Your task to perform on an android device: open chrome and create a bookmark for the current page Image 0: 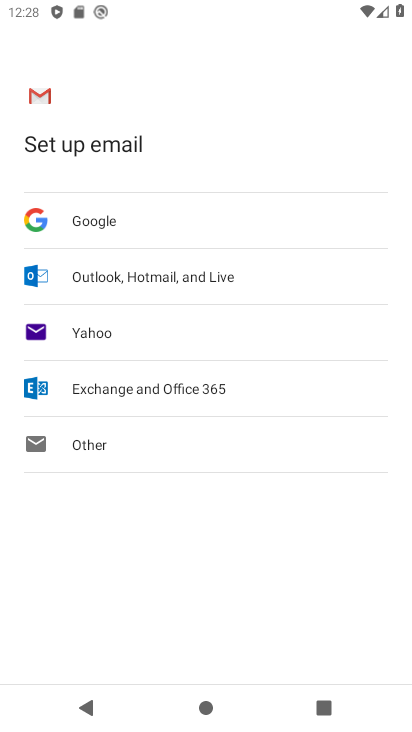
Step 0: press back button
Your task to perform on an android device: open chrome and create a bookmark for the current page Image 1: 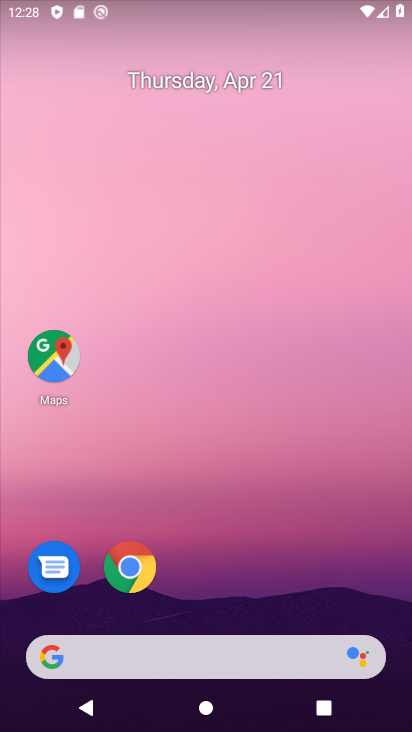
Step 1: click (120, 574)
Your task to perform on an android device: open chrome and create a bookmark for the current page Image 2: 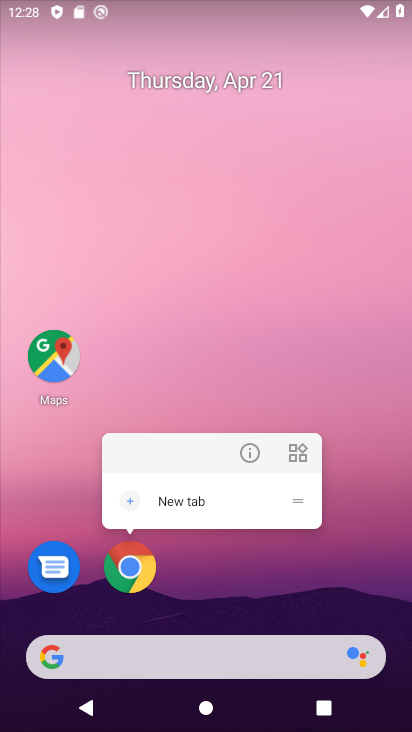
Step 2: click (137, 582)
Your task to perform on an android device: open chrome and create a bookmark for the current page Image 3: 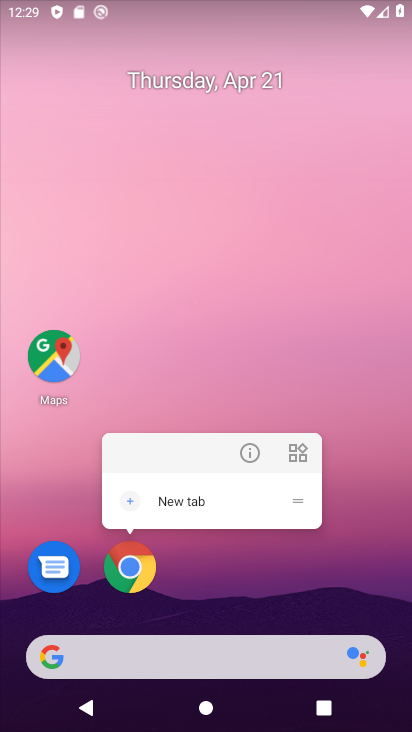
Step 3: click (159, 558)
Your task to perform on an android device: open chrome and create a bookmark for the current page Image 4: 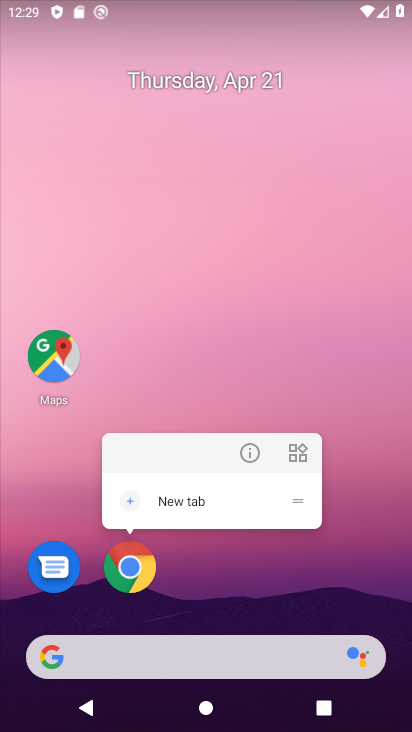
Step 4: click (143, 581)
Your task to perform on an android device: open chrome and create a bookmark for the current page Image 5: 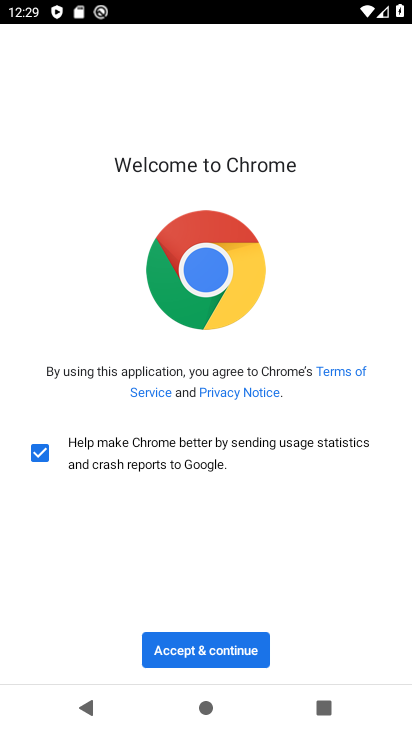
Step 5: click (223, 662)
Your task to perform on an android device: open chrome and create a bookmark for the current page Image 6: 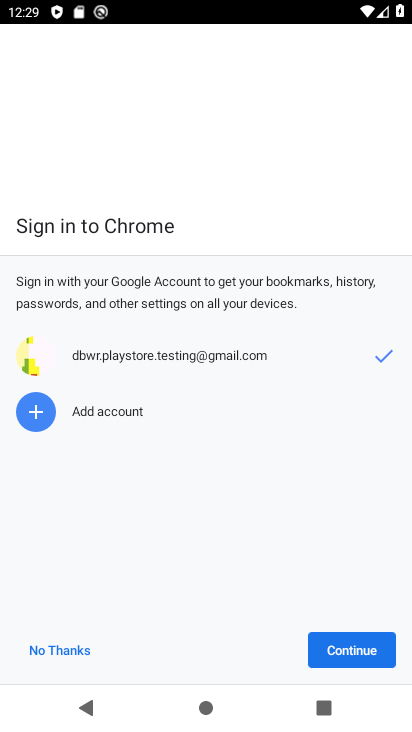
Step 6: click (370, 660)
Your task to perform on an android device: open chrome and create a bookmark for the current page Image 7: 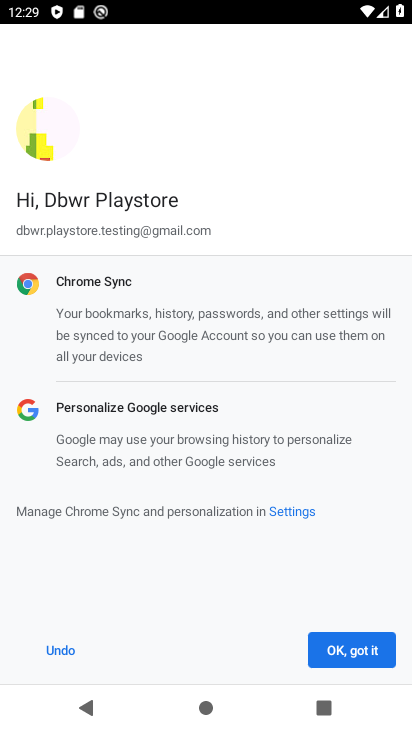
Step 7: click (373, 653)
Your task to perform on an android device: open chrome and create a bookmark for the current page Image 8: 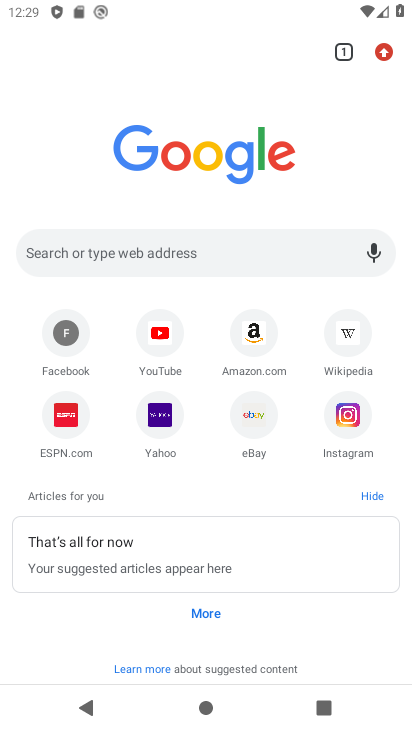
Step 8: click (408, 64)
Your task to perform on an android device: open chrome and create a bookmark for the current page Image 9: 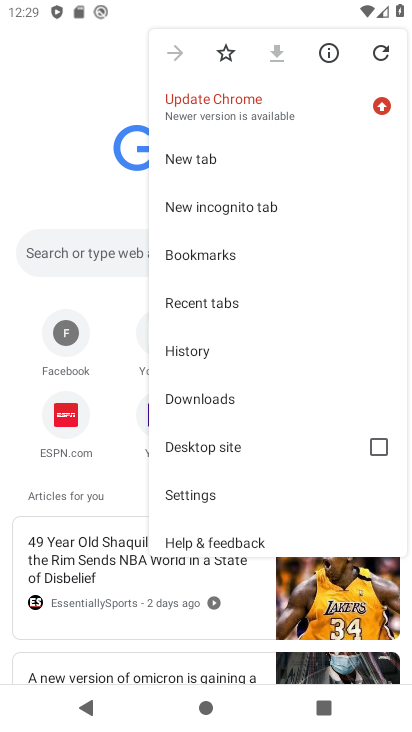
Step 9: click (233, 50)
Your task to perform on an android device: open chrome and create a bookmark for the current page Image 10: 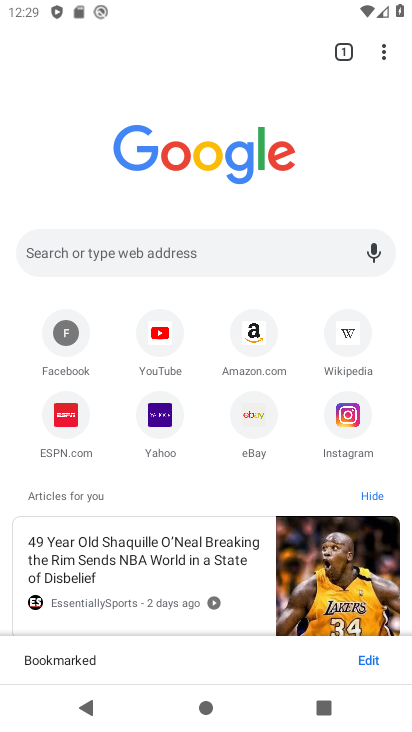
Step 10: task complete